Your task to perform on an android device: Go to display settings Image 0: 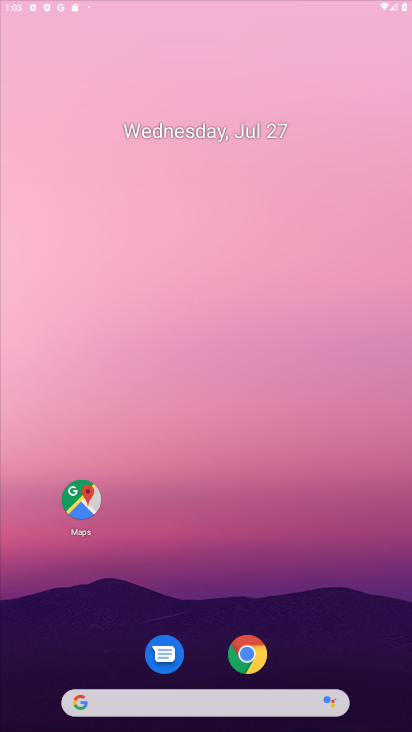
Step 0: press home button
Your task to perform on an android device: Go to display settings Image 1: 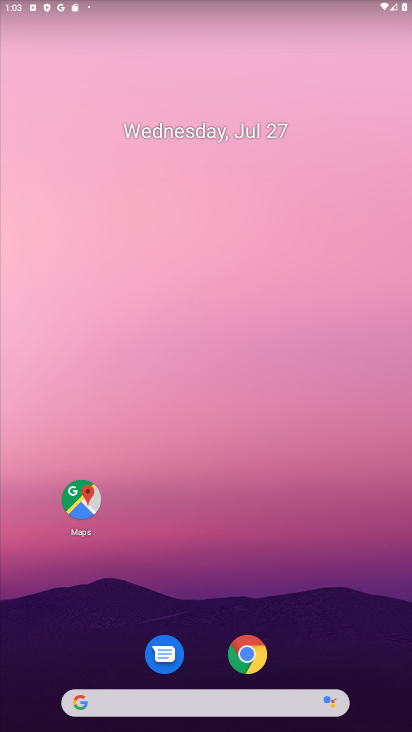
Step 1: drag from (227, 697) to (202, 60)
Your task to perform on an android device: Go to display settings Image 2: 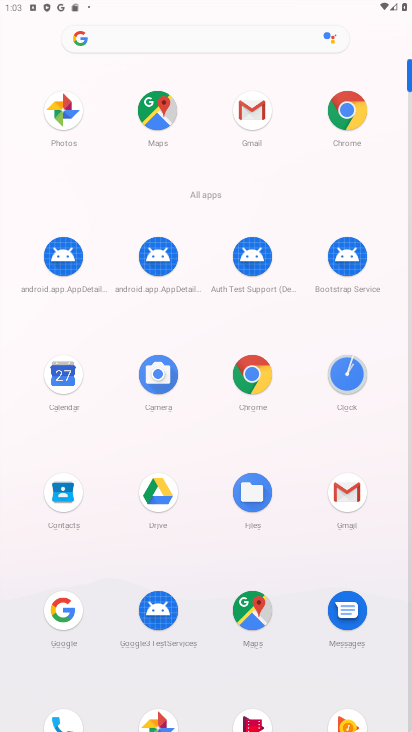
Step 2: drag from (299, 611) to (308, 150)
Your task to perform on an android device: Go to display settings Image 3: 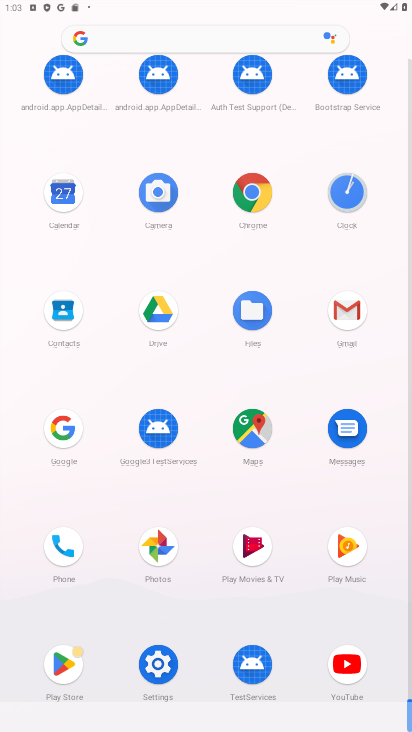
Step 3: click (162, 658)
Your task to perform on an android device: Go to display settings Image 4: 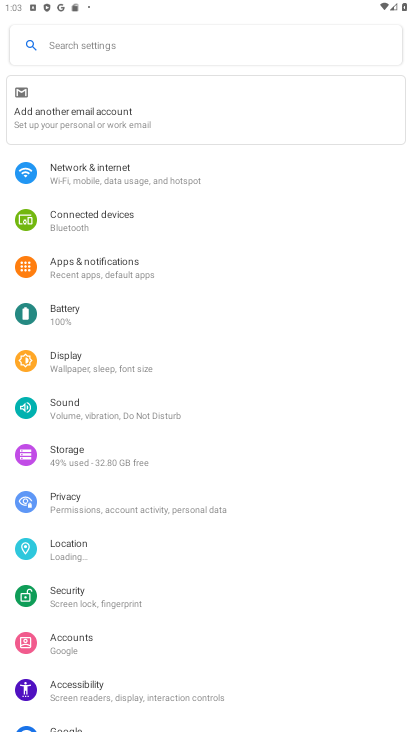
Step 4: click (123, 362)
Your task to perform on an android device: Go to display settings Image 5: 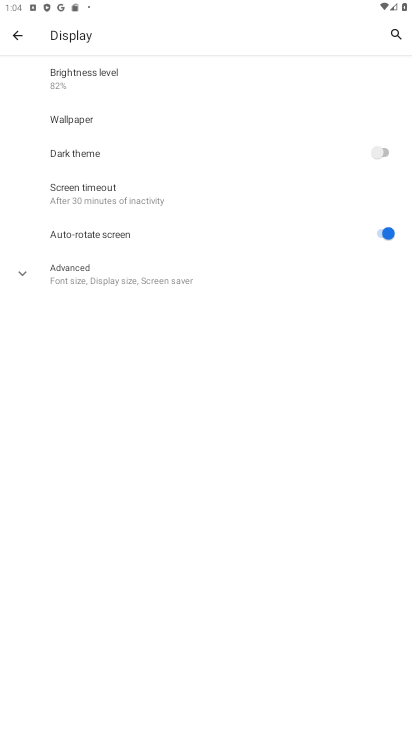
Step 5: task complete